Your task to perform on an android device: What's on my calendar today? Image 0: 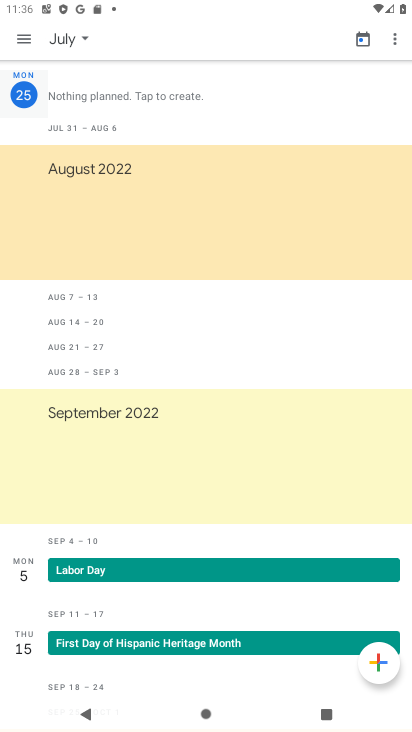
Step 0: task complete